Your task to perform on an android device: Open Google Maps Image 0: 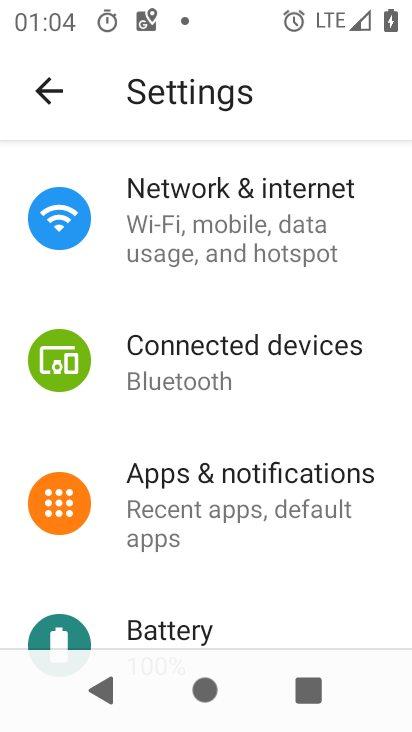
Step 0: press home button
Your task to perform on an android device: Open Google Maps Image 1: 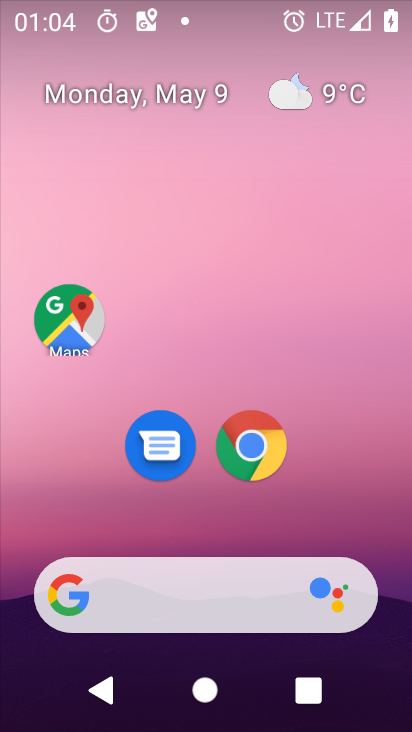
Step 1: click (57, 330)
Your task to perform on an android device: Open Google Maps Image 2: 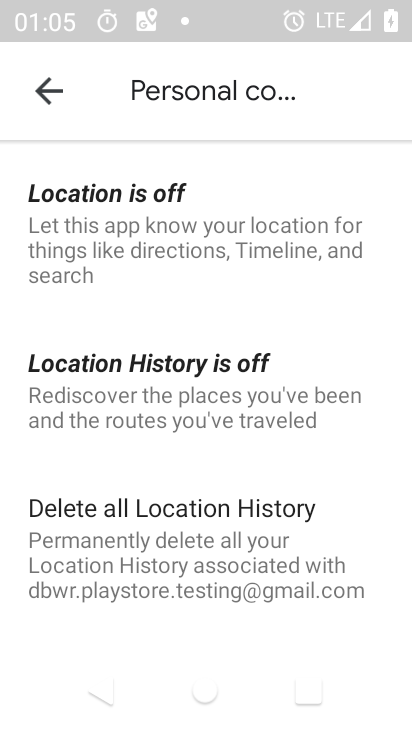
Step 2: click (49, 94)
Your task to perform on an android device: Open Google Maps Image 3: 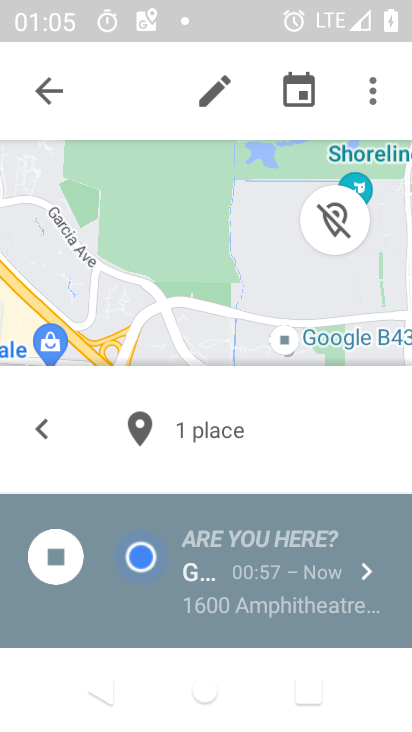
Step 3: click (49, 99)
Your task to perform on an android device: Open Google Maps Image 4: 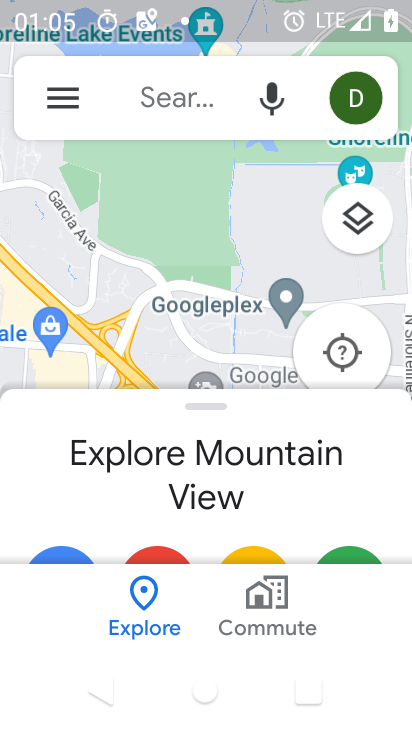
Step 4: task complete